Your task to perform on an android device: What's the weather today? Image 0: 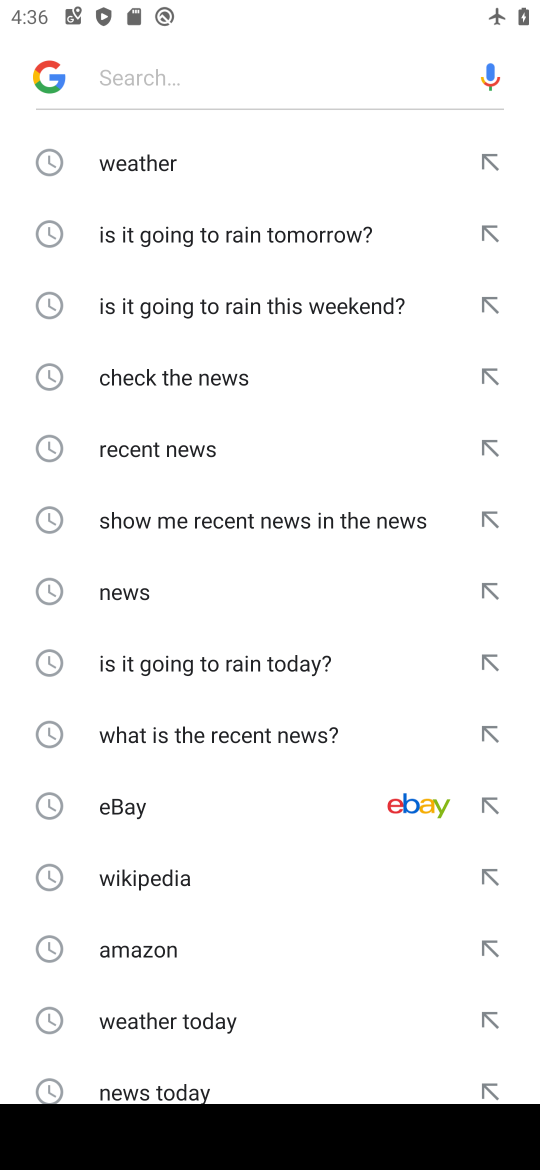
Step 0: press home button
Your task to perform on an android device: What's the weather today? Image 1: 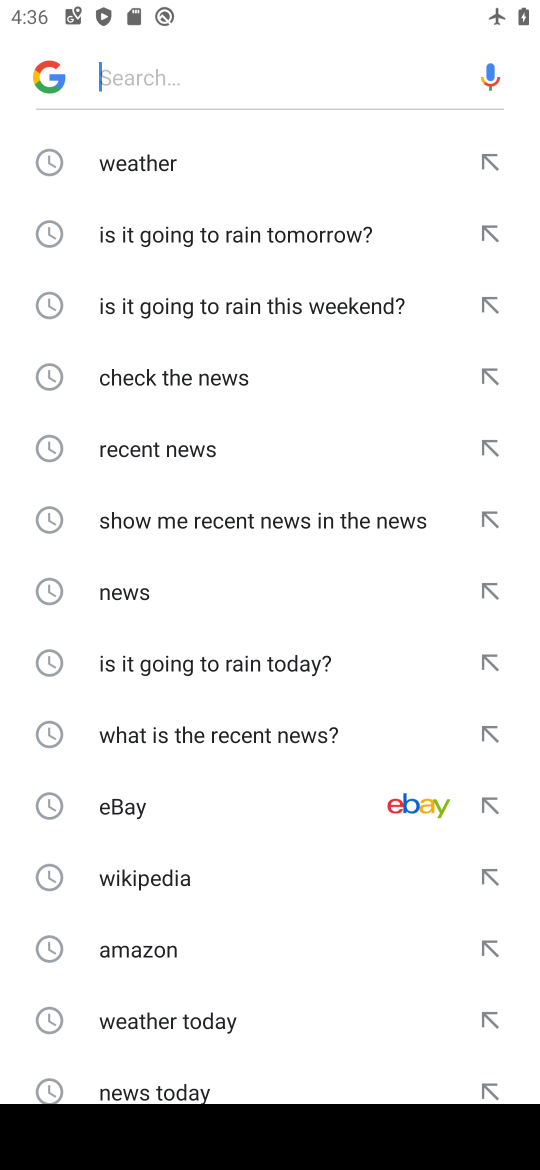
Step 1: press home button
Your task to perform on an android device: What's the weather today? Image 2: 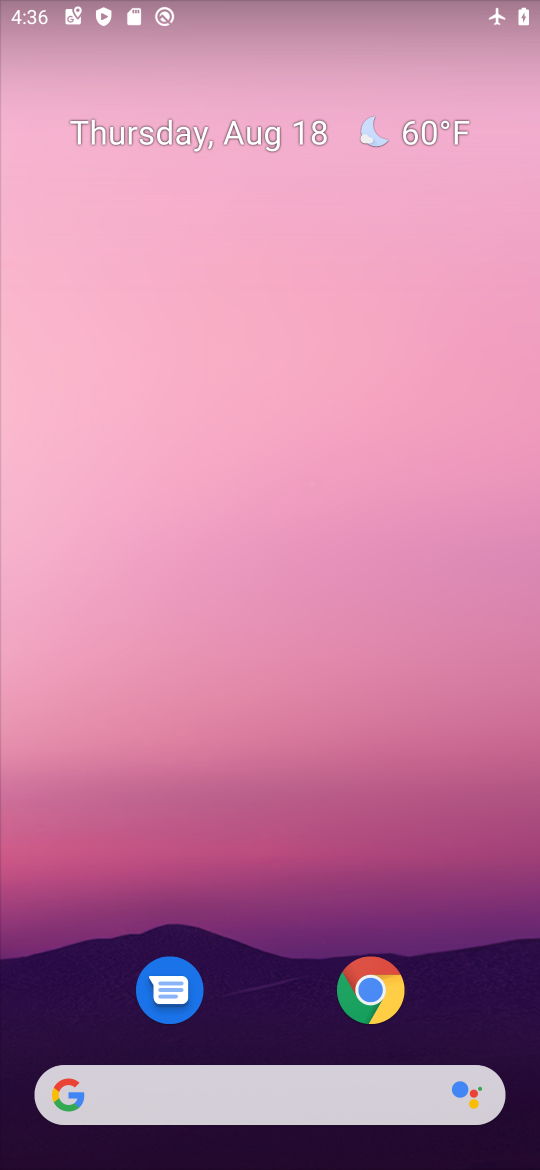
Step 2: click (459, 128)
Your task to perform on an android device: What's the weather today? Image 3: 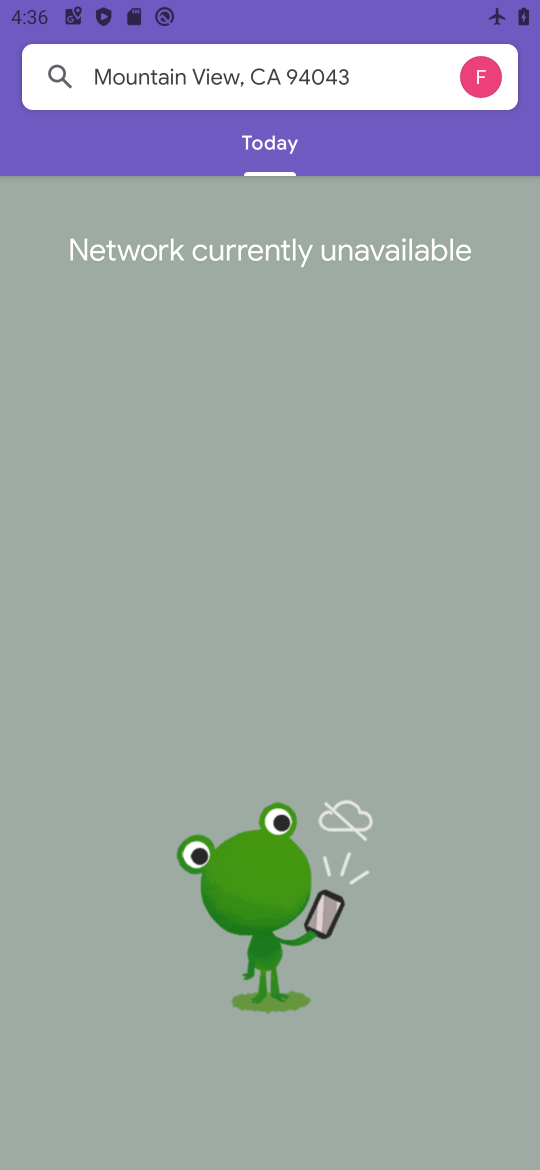
Step 3: task complete